Your task to perform on an android device: open chrome privacy settings Image 0: 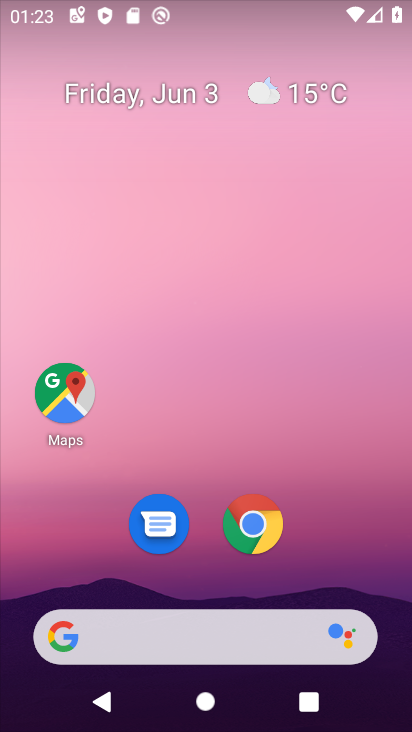
Step 0: click (261, 510)
Your task to perform on an android device: open chrome privacy settings Image 1: 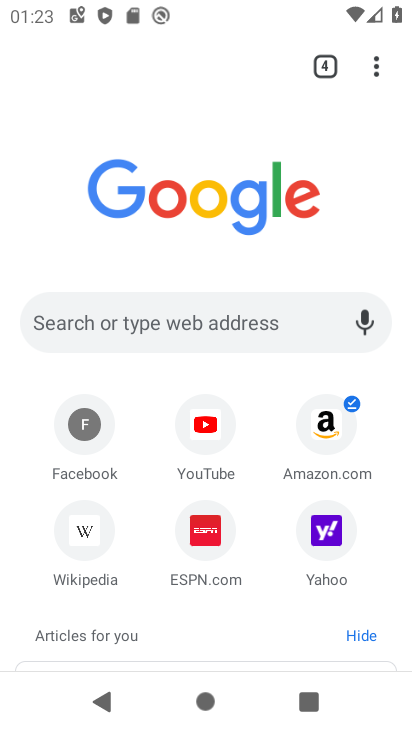
Step 1: click (370, 65)
Your task to perform on an android device: open chrome privacy settings Image 2: 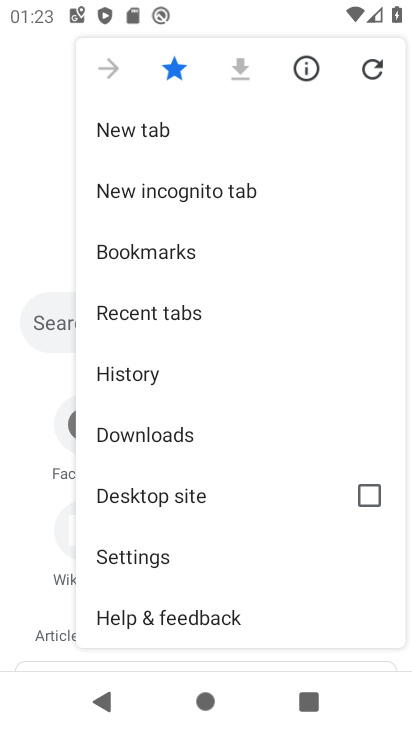
Step 2: click (238, 552)
Your task to perform on an android device: open chrome privacy settings Image 3: 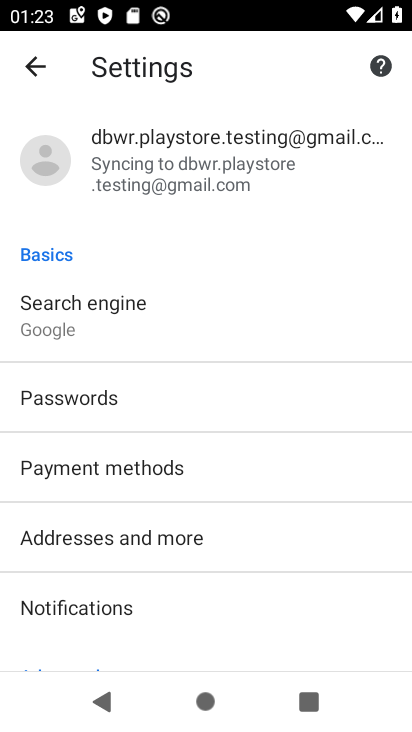
Step 3: drag from (268, 523) to (257, 239)
Your task to perform on an android device: open chrome privacy settings Image 4: 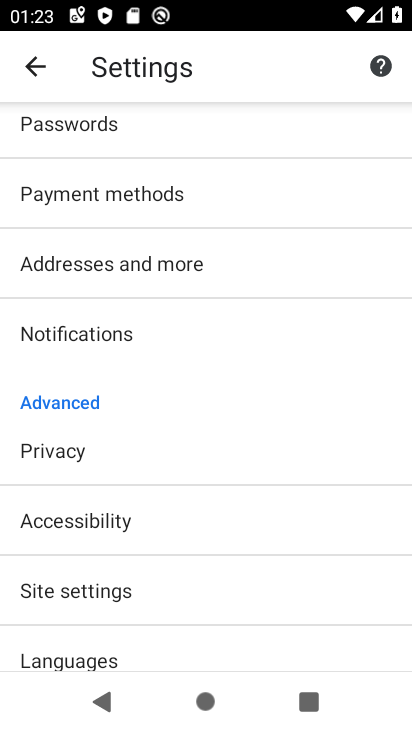
Step 4: click (187, 455)
Your task to perform on an android device: open chrome privacy settings Image 5: 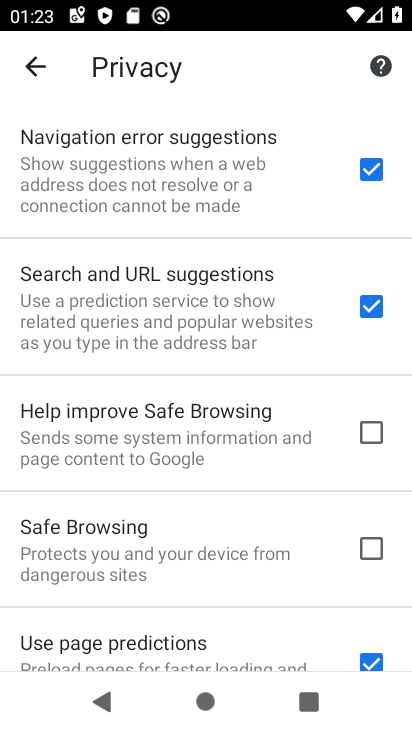
Step 5: task complete